Your task to perform on an android device: manage bookmarks in the chrome app Image 0: 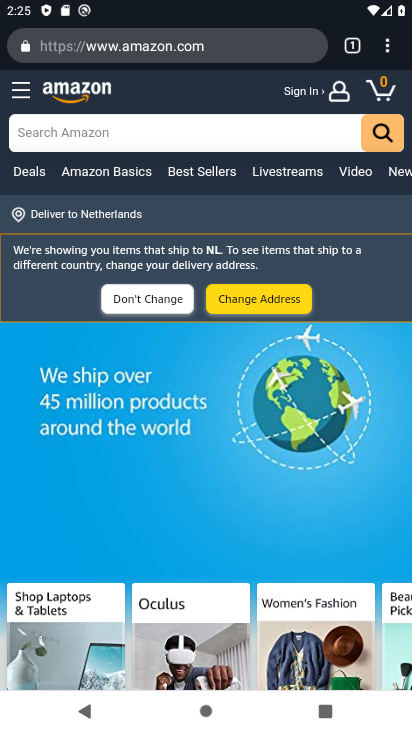
Step 0: press home button
Your task to perform on an android device: manage bookmarks in the chrome app Image 1: 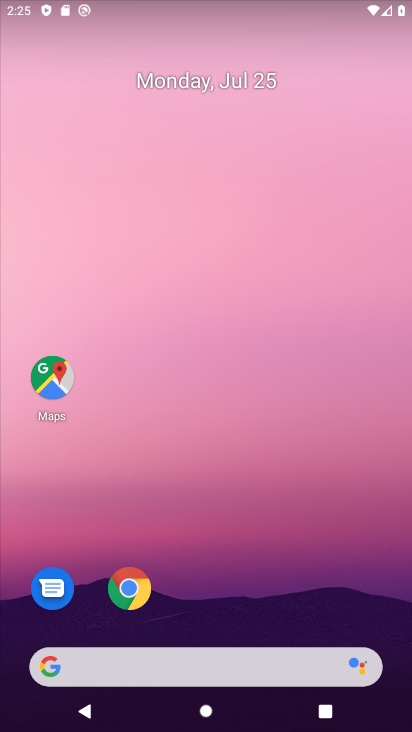
Step 1: drag from (333, 546) to (307, 110)
Your task to perform on an android device: manage bookmarks in the chrome app Image 2: 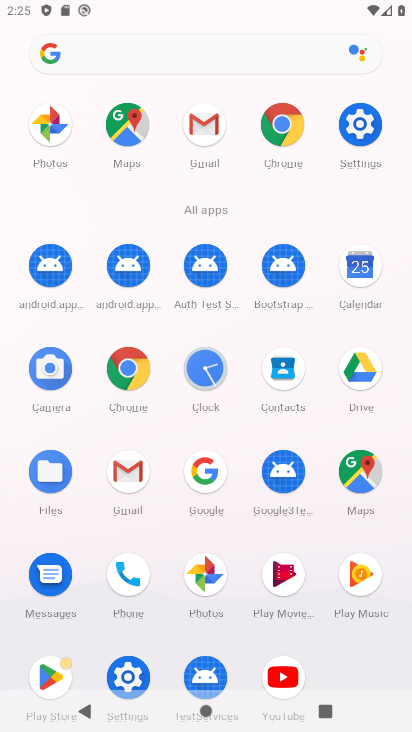
Step 2: click (130, 369)
Your task to perform on an android device: manage bookmarks in the chrome app Image 3: 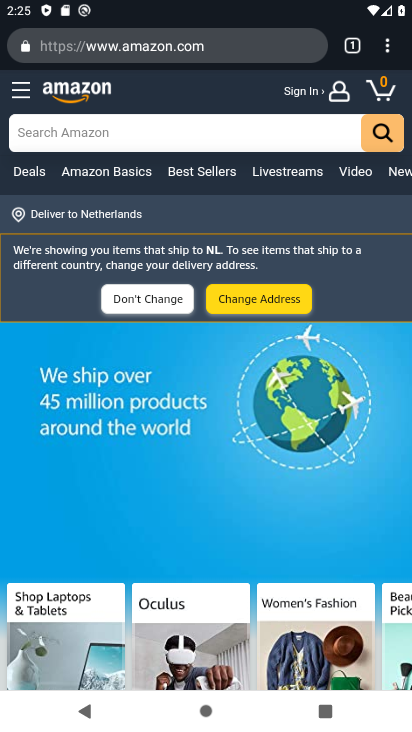
Step 3: drag from (389, 43) to (264, 177)
Your task to perform on an android device: manage bookmarks in the chrome app Image 4: 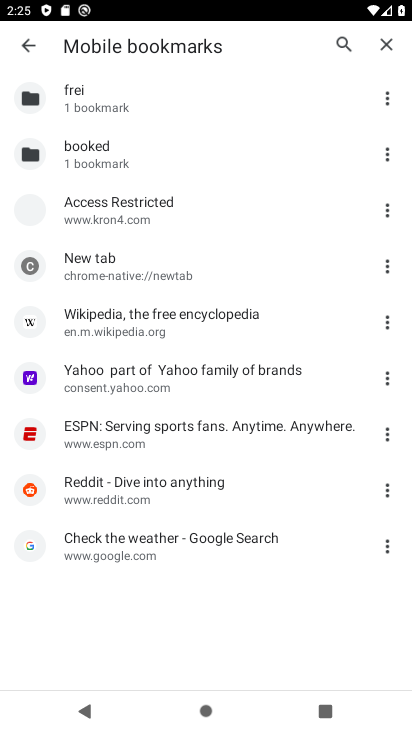
Step 4: click (387, 495)
Your task to perform on an android device: manage bookmarks in the chrome app Image 5: 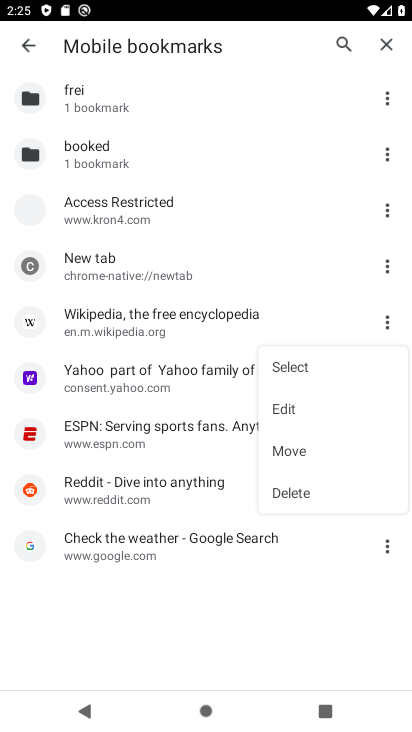
Step 5: click (285, 407)
Your task to perform on an android device: manage bookmarks in the chrome app Image 6: 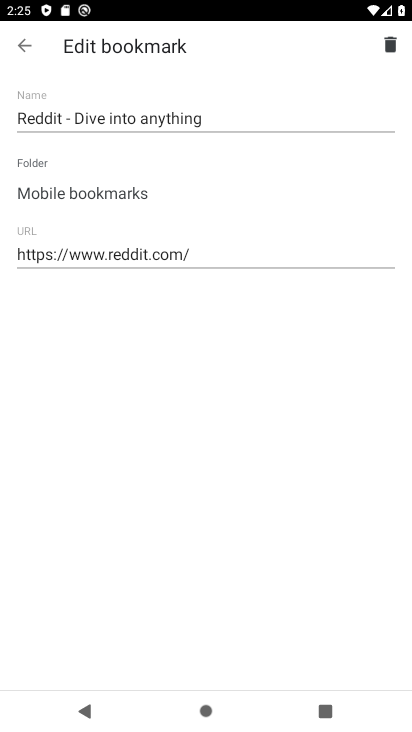
Step 6: click (278, 114)
Your task to perform on an android device: manage bookmarks in the chrome app Image 7: 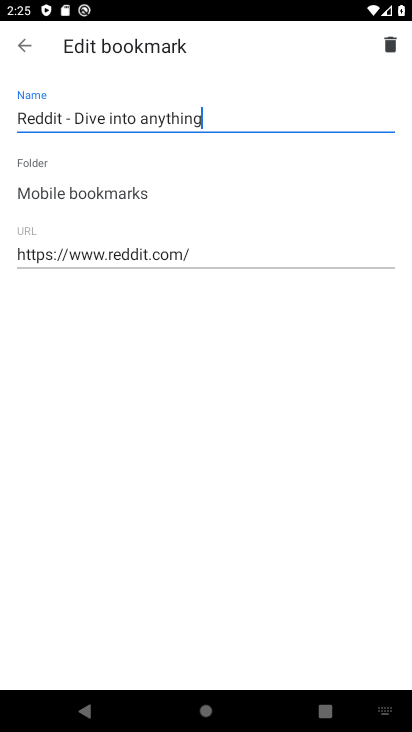
Step 7: type " god"
Your task to perform on an android device: manage bookmarks in the chrome app Image 8: 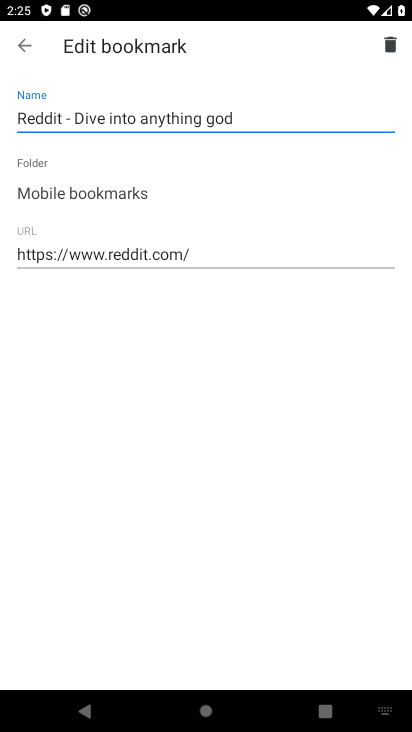
Step 8: click (27, 40)
Your task to perform on an android device: manage bookmarks in the chrome app Image 9: 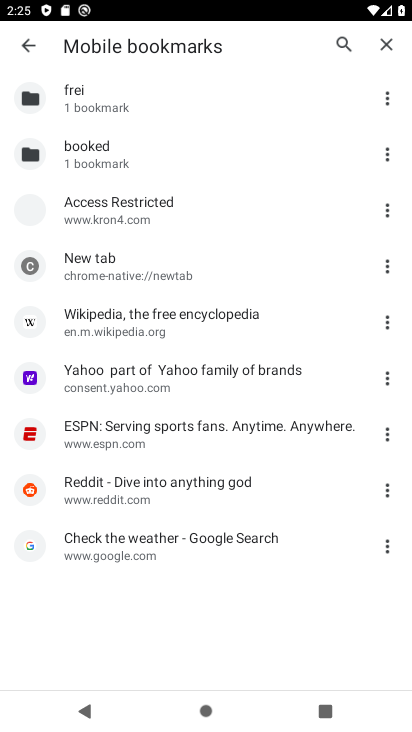
Step 9: task complete